Your task to perform on an android device: turn off notifications settings in the gmail app Image 0: 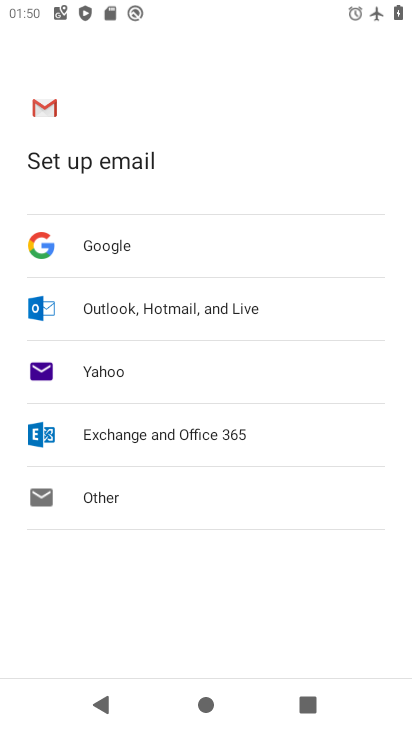
Step 0: press home button
Your task to perform on an android device: turn off notifications settings in the gmail app Image 1: 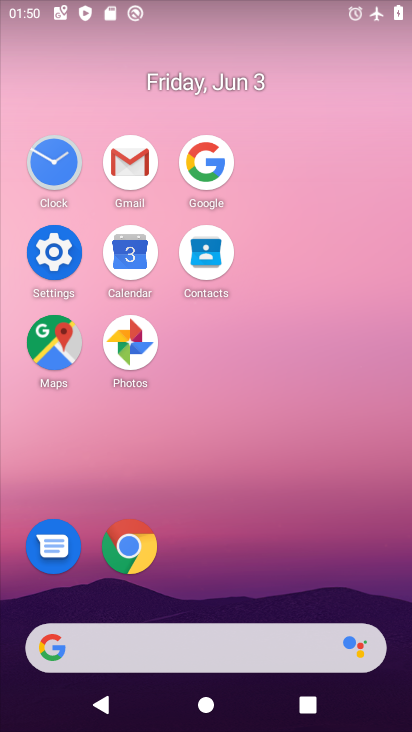
Step 1: click (141, 167)
Your task to perform on an android device: turn off notifications settings in the gmail app Image 2: 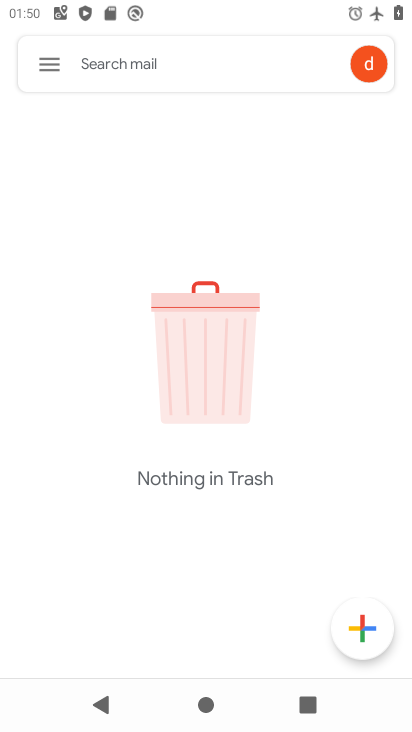
Step 2: click (42, 72)
Your task to perform on an android device: turn off notifications settings in the gmail app Image 3: 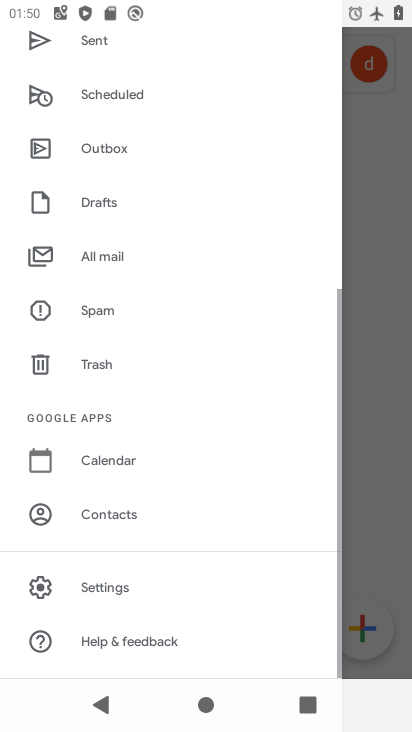
Step 3: click (181, 574)
Your task to perform on an android device: turn off notifications settings in the gmail app Image 4: 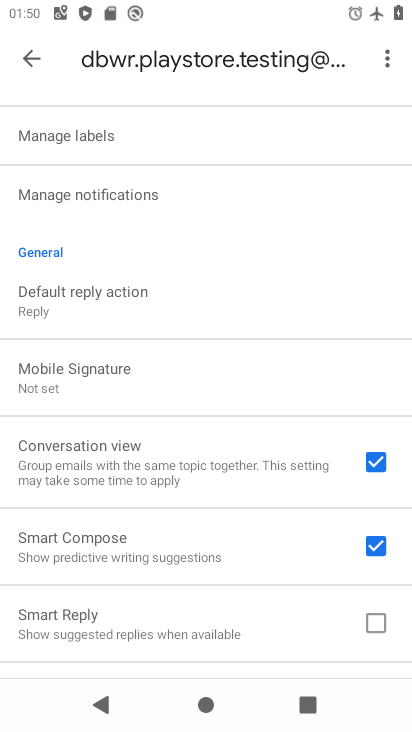
Step 4: click (178, 173)
Your task to perform on an android device: turn off notifications settings in the gmail app Image 5: 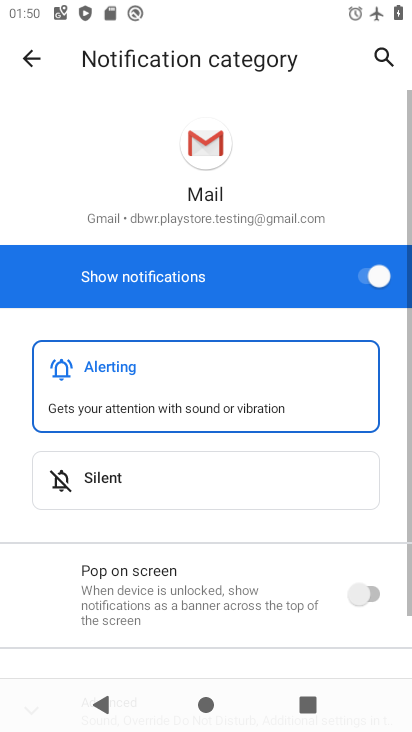
Step 5: click (342, 279)
Your task to perform on an android device: turn off notifications settings in the gmail app Image 6: 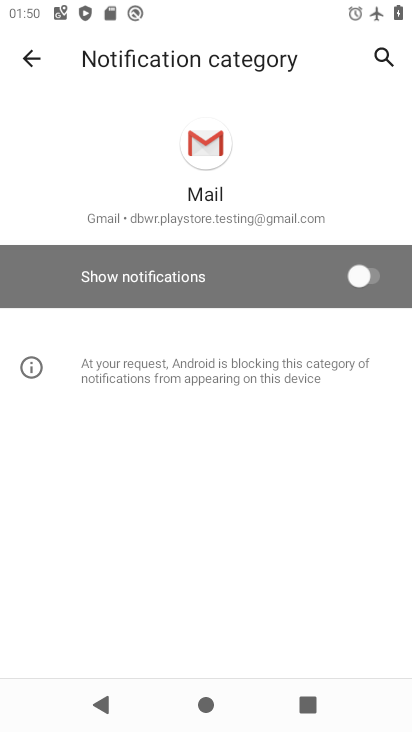
Step 6: task complete